Your task to perform on an android device: turn off location history Image 0: 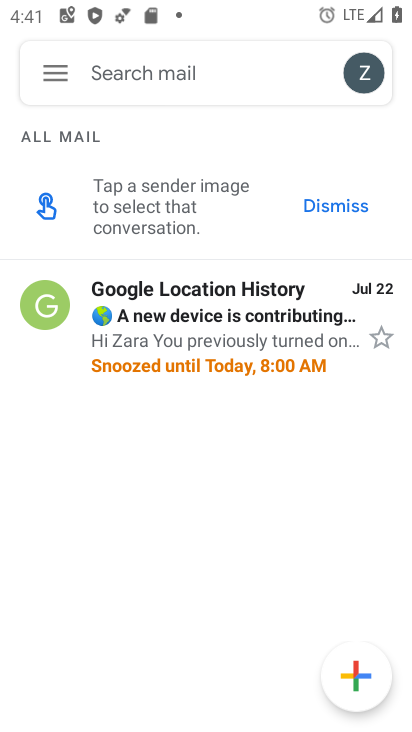
Step 0: press home button
Your task to perform on an android device: turn off location history Image 1: 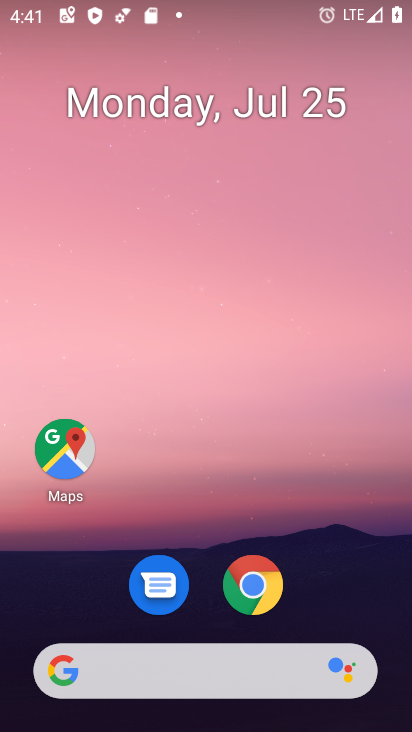
Step 1: drag from (338, 582) to (373, 13)
Your task to perform on an android device: turn off location history Image 2: 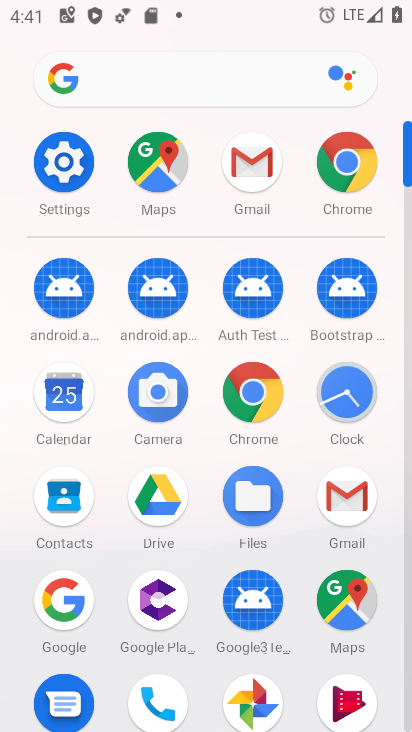
Step 2: click (70, 162)
Your task to perform on an android device: turn off location history Image 3: 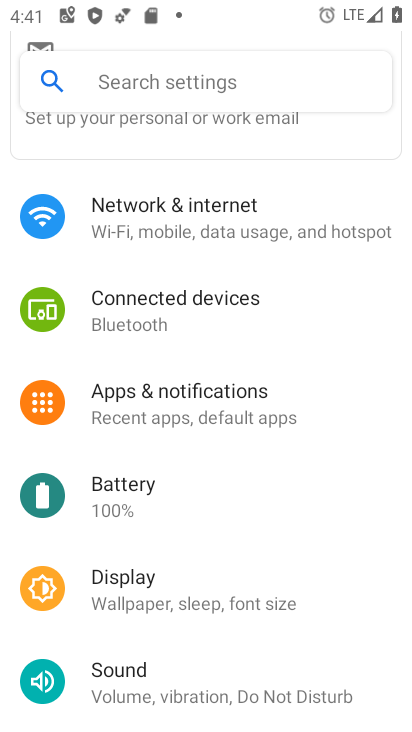
Step 3: drag from (210, 578) to (224, 175)
Your task to perform on an android device: turn off location history Image 4: 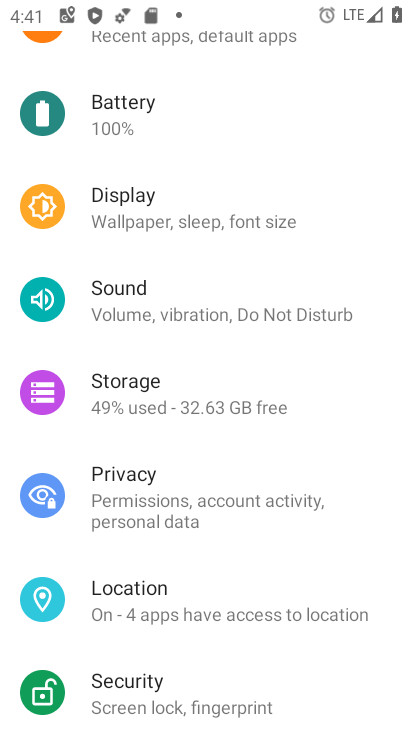
Step 4: click (230, 614)
Your task to perform on an android device: turn off location history Image 5: 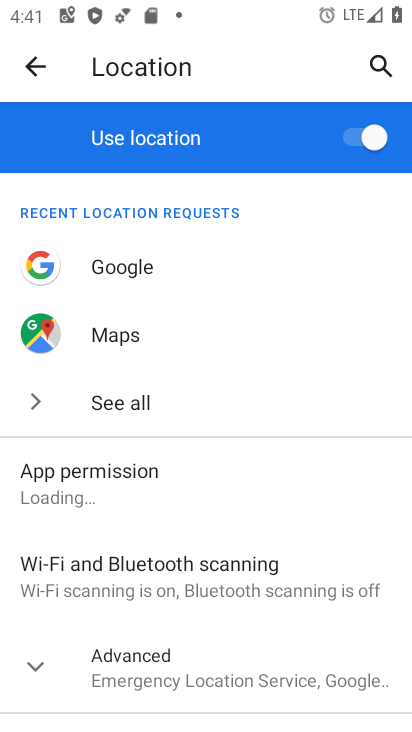
Step 5: drag from (260, 490) to (276, 183)
Your task to perform on an android device: turn off location history Image 6: 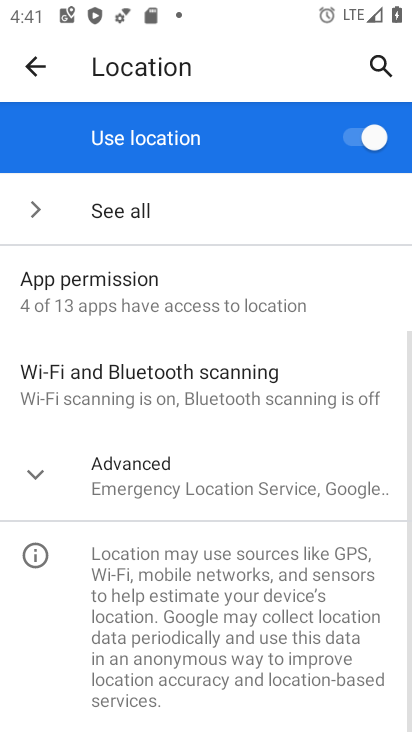
Step 6: click (41, 472)
Your task to perform on an android device: turn off location history Image 7: 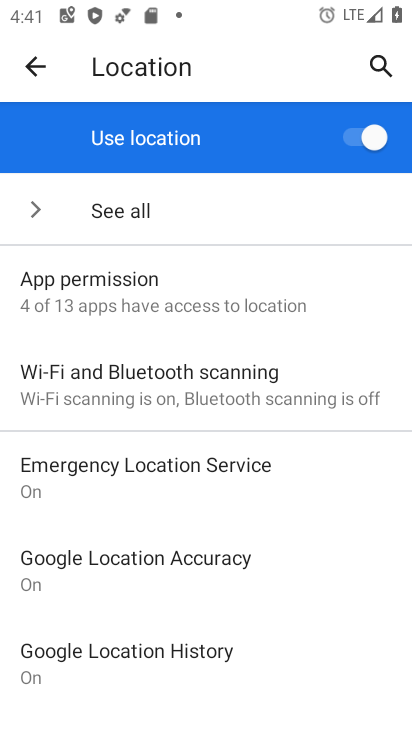
Step 7: click (148, 650)
Your task to perform on an android device: turn off location history Image 8: 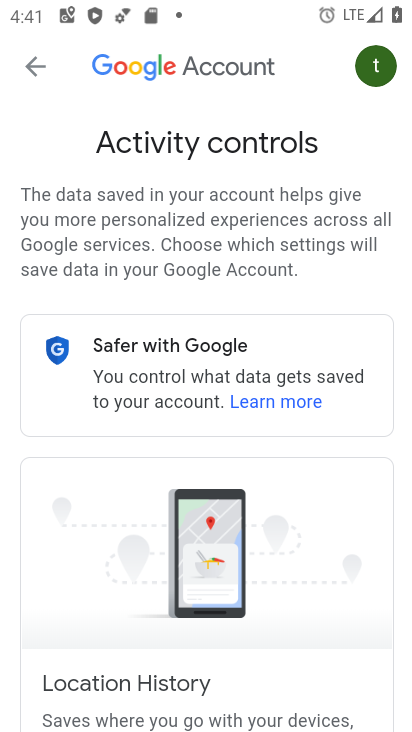
Step 8: drag from (279, 573) to (318, 32)
Your task to perform on an android device: turn off location history Image 9: 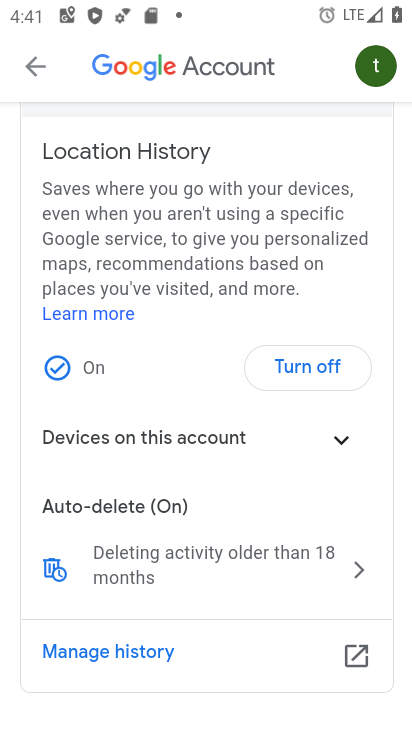
Step 9: click (304, 359)
Your task to perform on an android device: turn off location history Image 10: 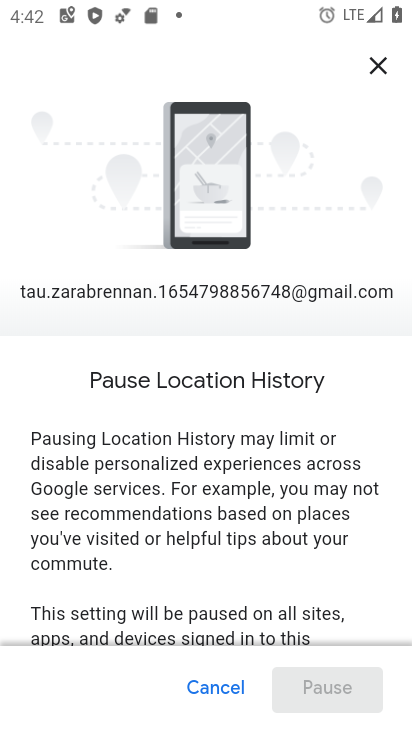
Step 10: click (318, 686)
Your task to perform on an android device: turn off location history Image 11: 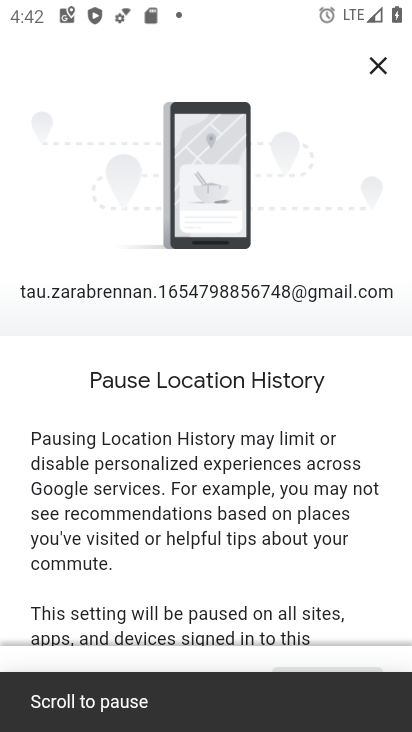
Step 11: drag from (380, 564) to (349, 184)
Your task to perform on an android device: turn off location history Image 12: 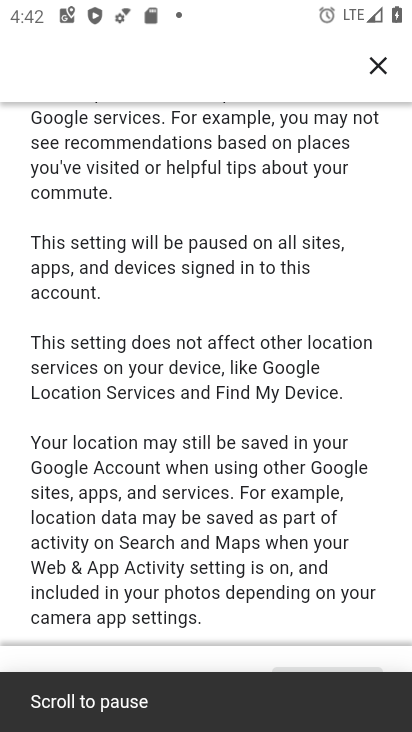
Step 12: drag from (331, 551) to (335, 57)
Your task to perform on an android device: turn off location history Image 13: 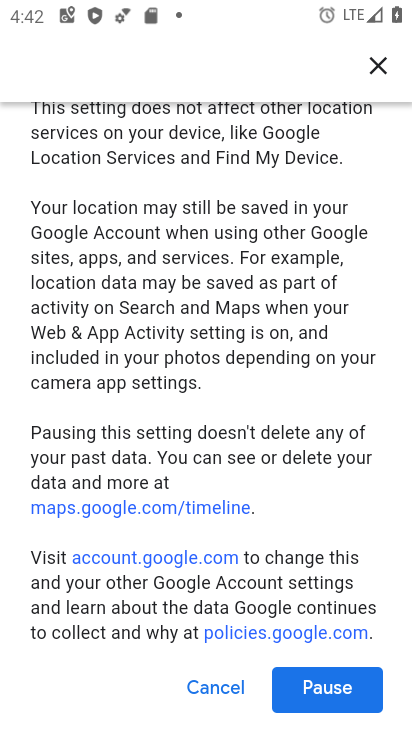
Step 13: click (355, 683)
Your task to perform on an android device: turn off location history Image 14: 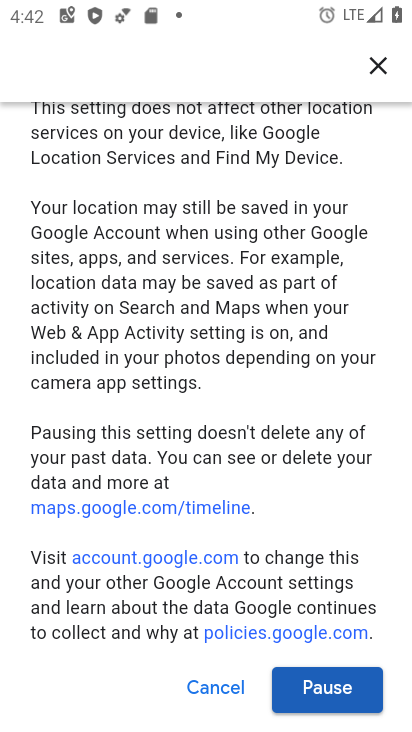
Step 14: click (355, 693)
Your task to perform on an android device: turn off location history Image 15: 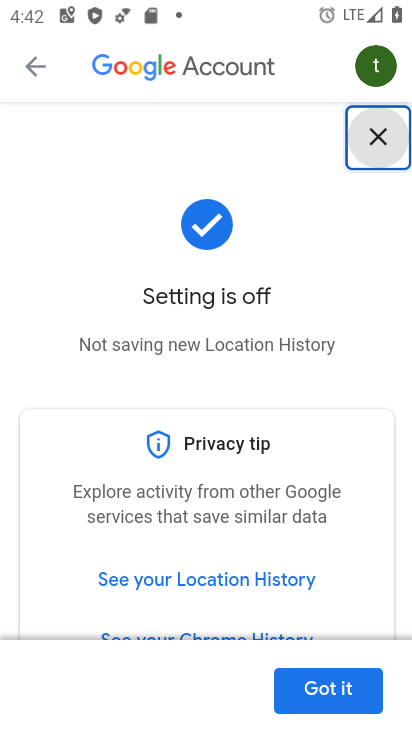
Step 15: click (355, 690)
Your task to perform on an android device: turn off location history Image 16: 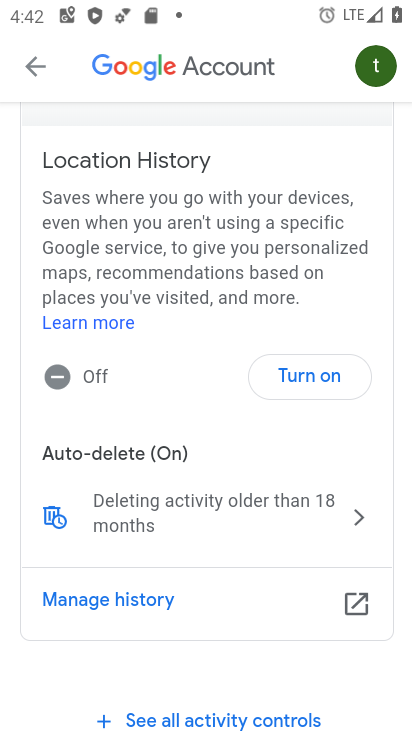
Step 16: task complete